Your task to perform on an android device: Open Chrome and go to the settings page Image 0: 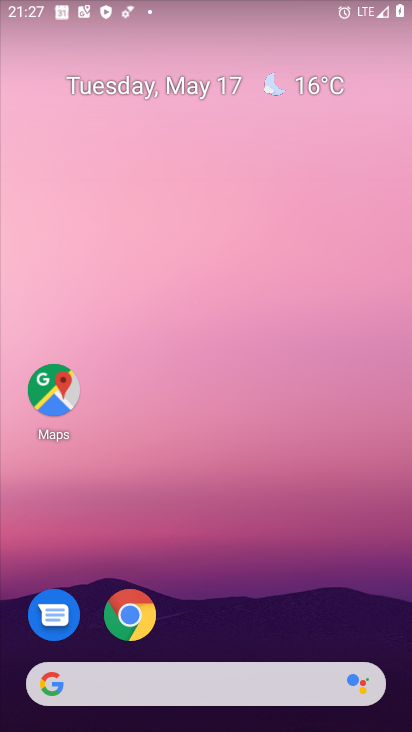
Step 0: click (145, 609)
Your task to perform on an android device: Open Chrome and go to the settings page Image 1: 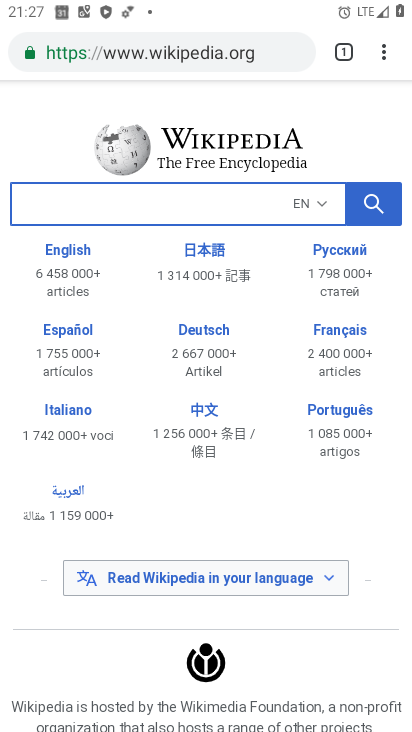
Step 1: click (375, 56)
Your task to perform on an android device: Open Chrome and go to the settings page Image 2: 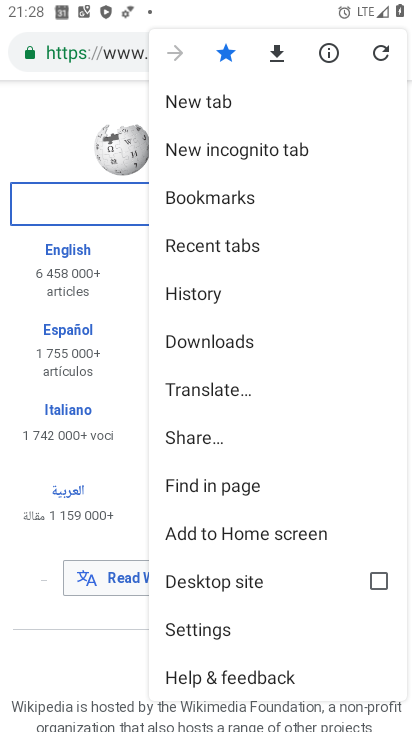
Step 2: click (227, 630)
Your task to perform on an android device: Open Chrome and go to the settings page Image 3: 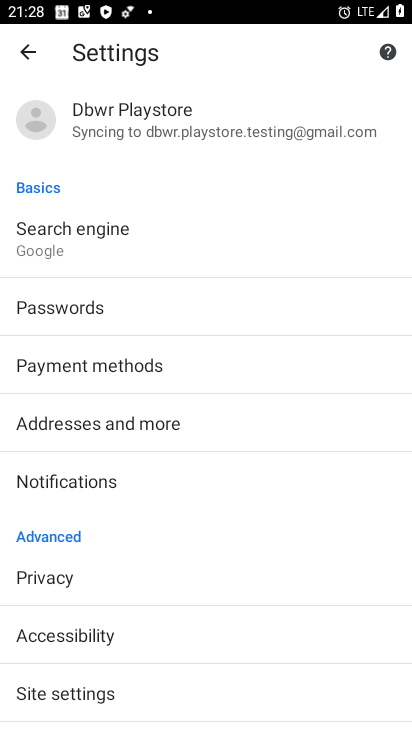
Step 3: task complete